Your task to perform on an android device: Open Wikipedia Image 0: 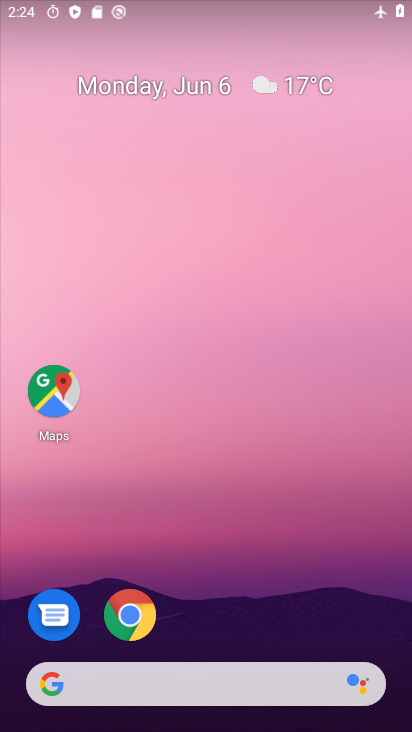
Step 0: click (137, 609)
Your task to perform on an android device: Open Wikipedia Image 1: 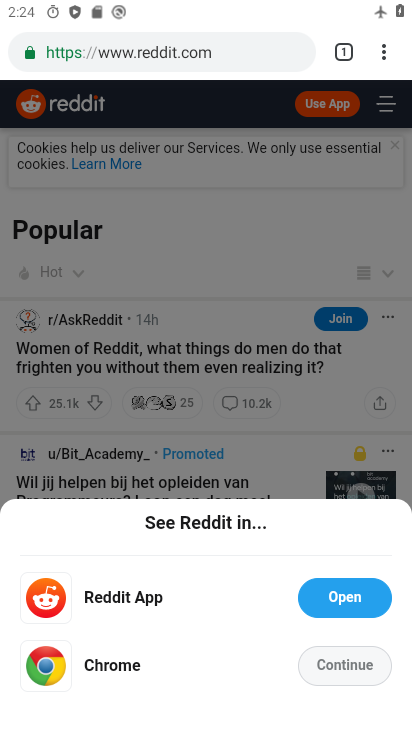
Step 1: click (189, 52)
Your task to perform on an android device: Open Wikipedia Image 2: 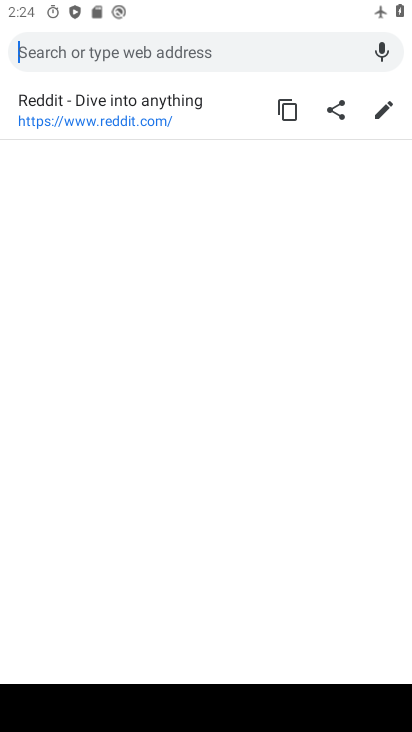
Step 2: type "wikipedia"
Your task to perform on an android device: Open Wikipedia Image 3: 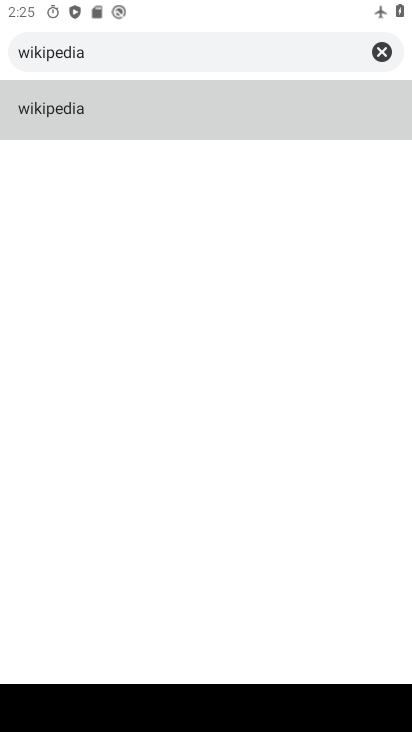
Step 3: click (120, 107)
Your task to perform on an android device: Open Wikipedia Image 4: 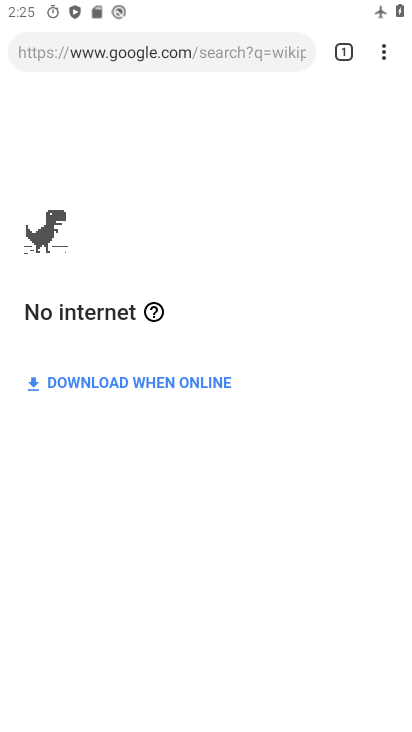
Step 4: task complete